Your task to perform on an android device: Open network settings Image 0: 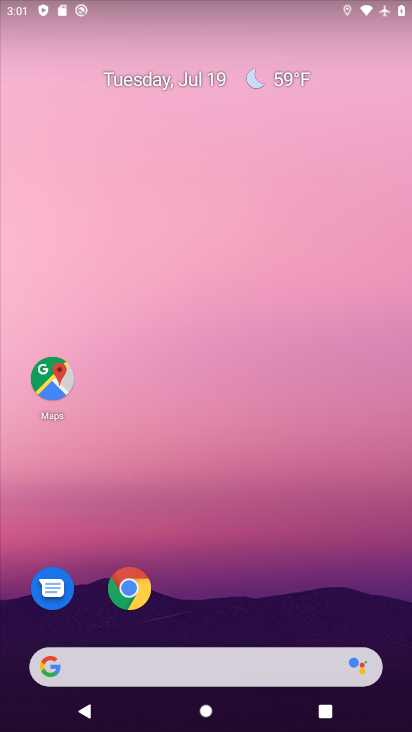
Step 0: press home button
Your task to perform on an android device: Open network settings Image 1: 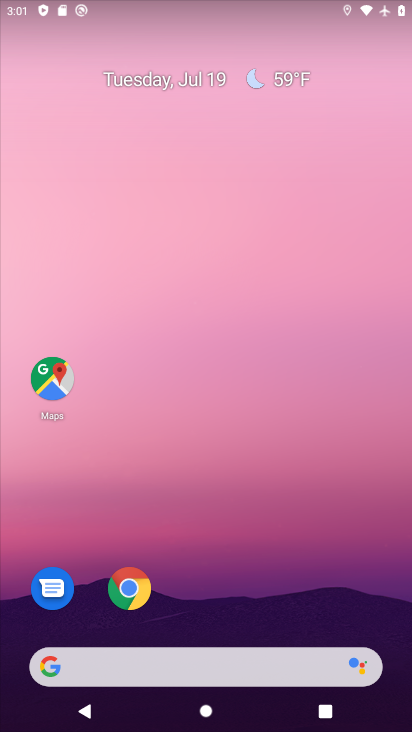
Step 1: drag from (341, 599) to (287, 113)
Your task to perform on an android device: Open network settings Image 2: 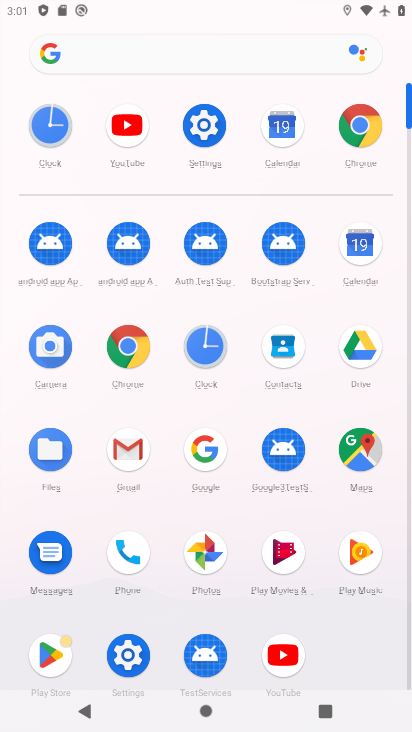
Step 2: click (207, 126)
Your task to perform on an android device: Open network settings Image 3: 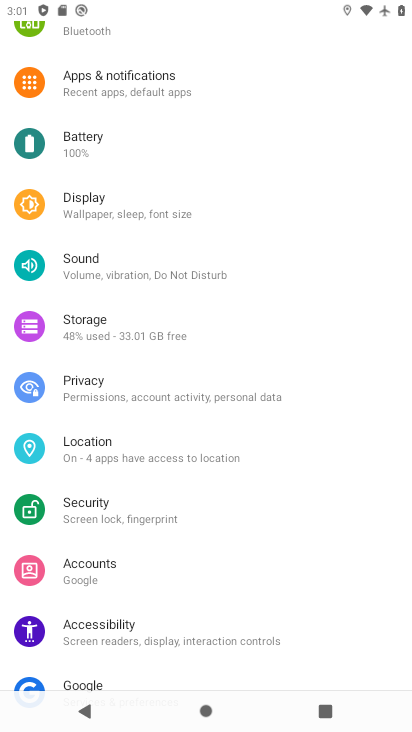
Step 3: drag from (244, 127) to (212, 723)
Your task to perform on an android device: Open network settings Image 4: 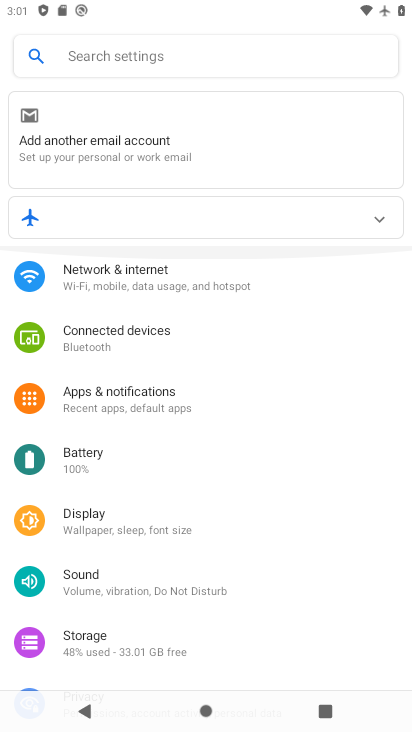
Step 4: drag from (243, 144) to (207, 629)
Your task to perform on an android device: Open network settings Image 5: 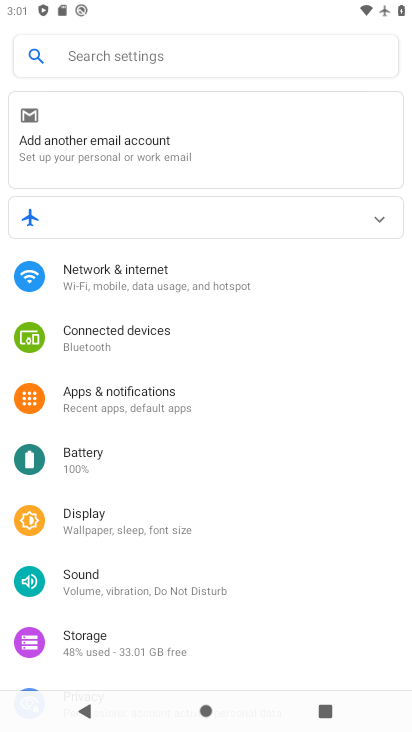
Step 5: click (106, 282)
Your task to perform on an android device: Open network settings Image 6: 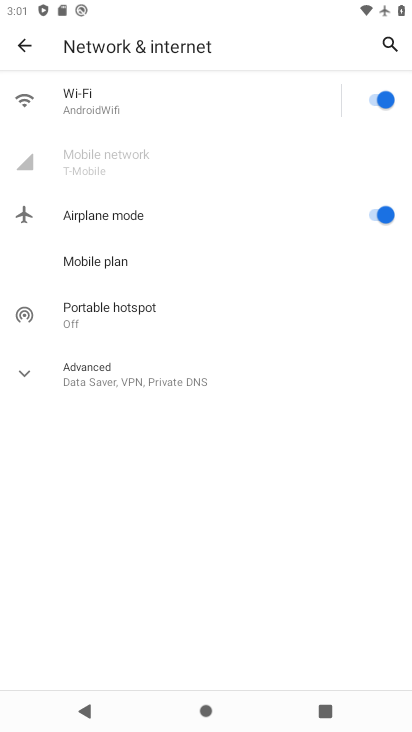
Step 6: task complete